Your task to perform on an android device: turn notification dots off Image 0: 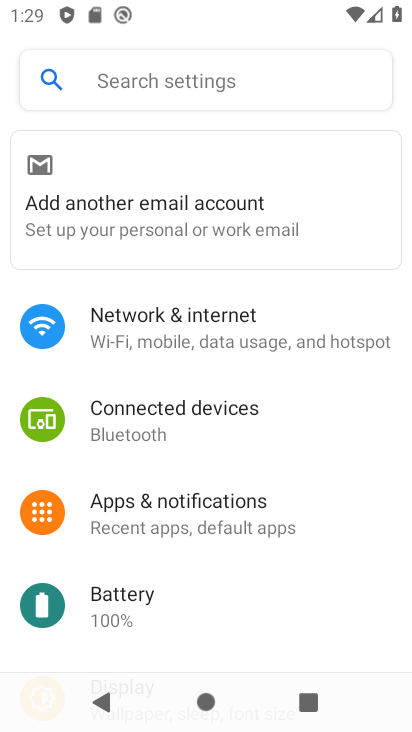
Step 0: click (216, 496)
Your task to perform on an android device: turn notification dots off Image 1: 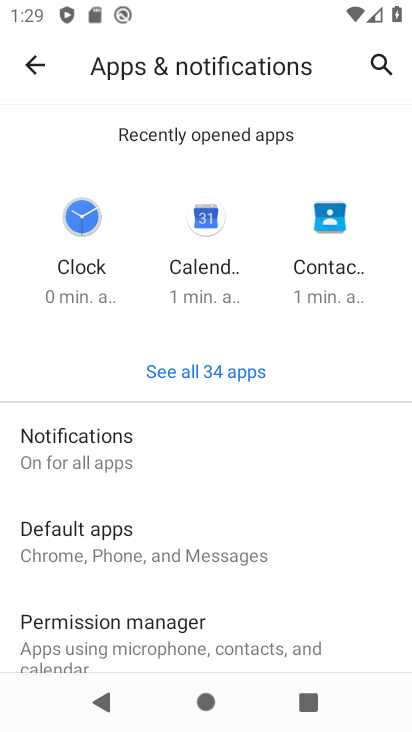
Step 1: click (195, 467)
Your task to perform on an android device: turn notification dots off Image 2: 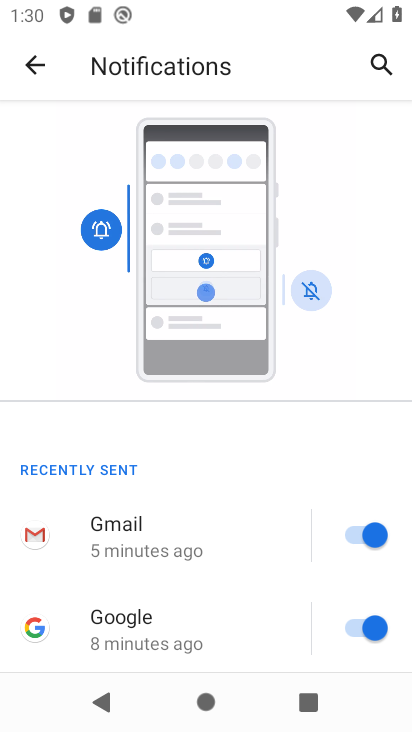
Step 2: drag from (211, 623) to (301, 108)
Your task to perform on an android device: turn notification dots off Image 3: 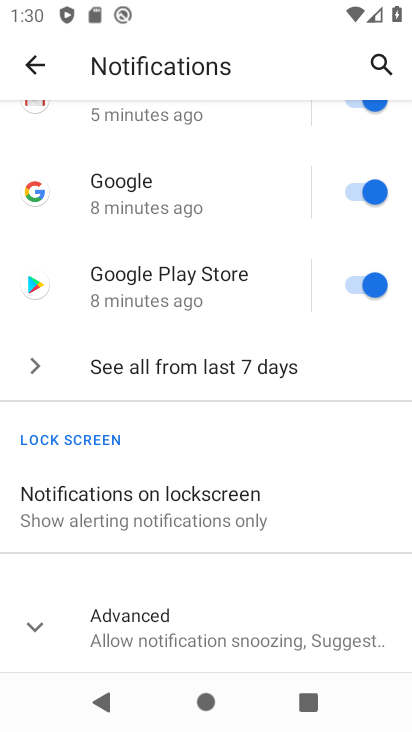
Step 3: click (194, 516)
Your task to perform on an android device: turn notification dots off Image 4: 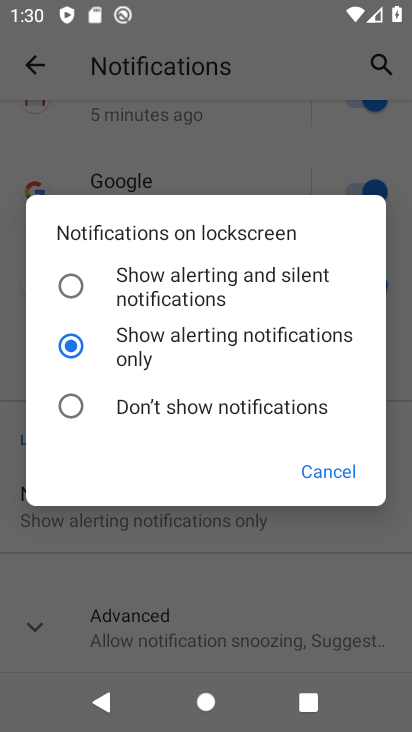
Step 4: click (322, 477)
Your task to perform on an android device: turn notification dots off Image 5: 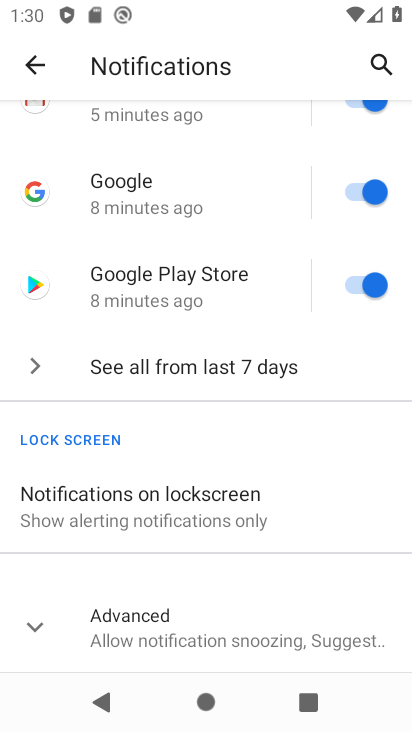
Step 5: click (139, 635)
Your task to perform on an android device: turn notification dots off Image 6: 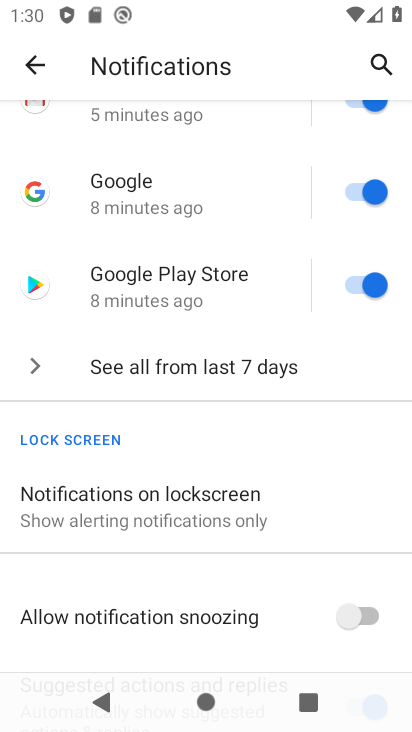
Step 6: click (243, 619)
Your task to perform on an android device: turn notification dots off Image 7: 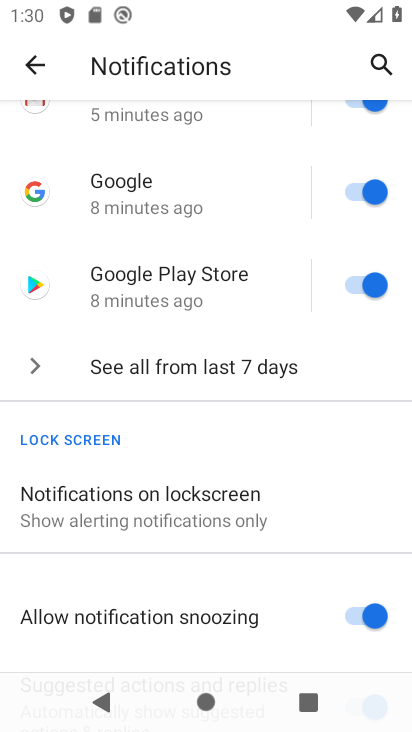
Step 7: drag from (195, 622) to (400, 34)
Your task to perform on an android device: turn notification dots off Image 8: 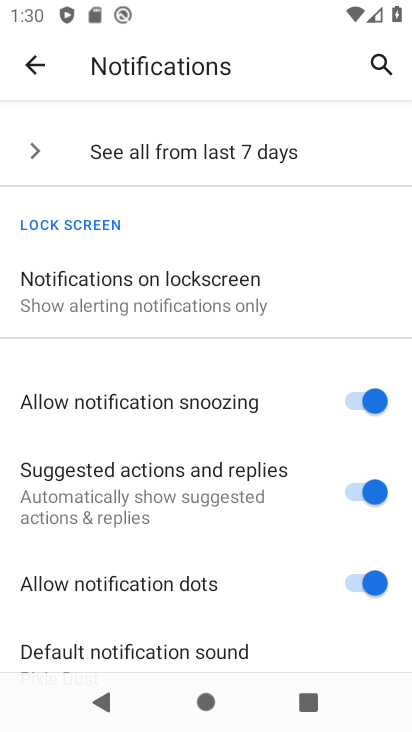
Step 8: click (375, 579)
Your task to perform on an android device: turn notification dots off Image 9: 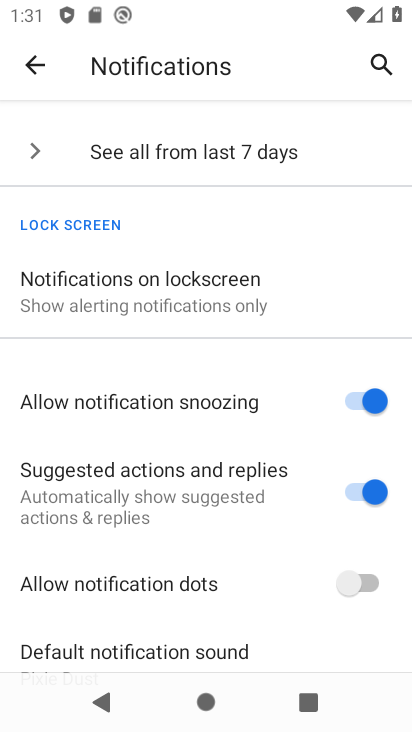
Step 9: task complete